Your task to perform on an android device: Do I have any events today? Image 0: 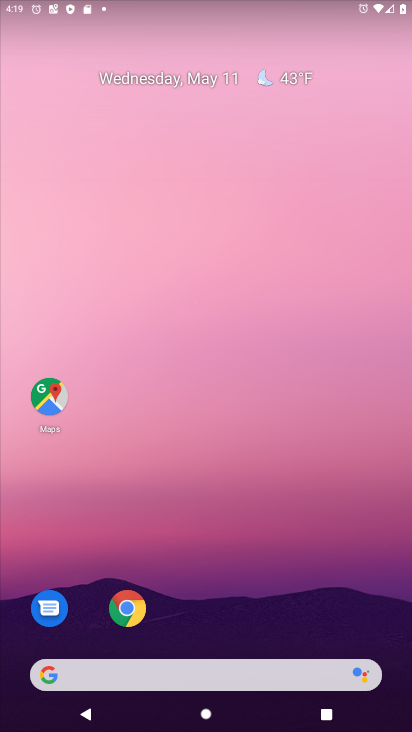
Step 0: drag from (234, 726) to (235, 128)
Your task to perform on an android device: Do I have any events today? Image 1: 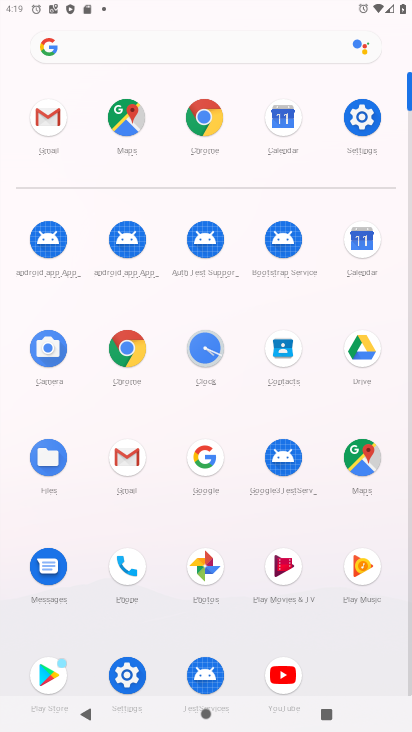
Step 1: click (358, 242)
Your task to perform on an android device: Do I have any events today? Image 2: 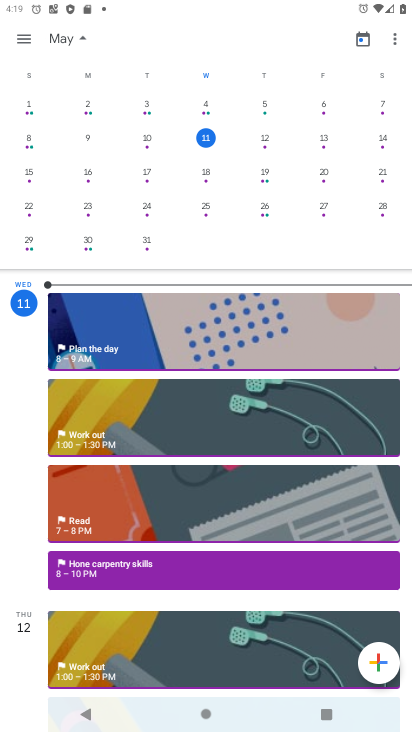
Step 2: click (201, 141)
Your task to perform on an android device: Do I have any events today? Image 3: 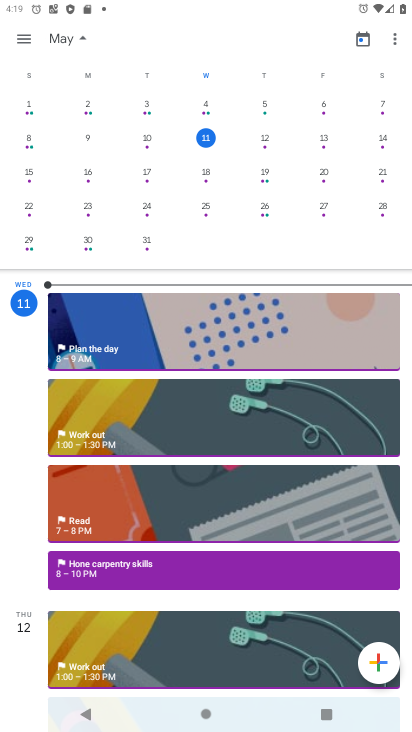
Step 3: click (27, 38)
Your task to perform on an android device: Do I have any events today? Image 4: 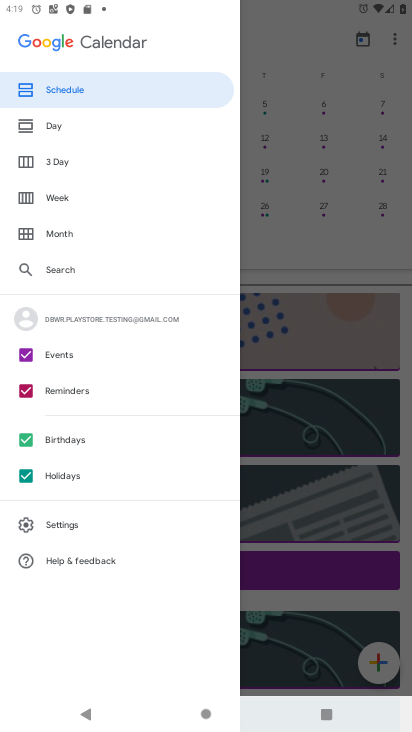
Step 4: click (26, 473)
Your task to perform on an android device: Do I have any events today? Image 5: 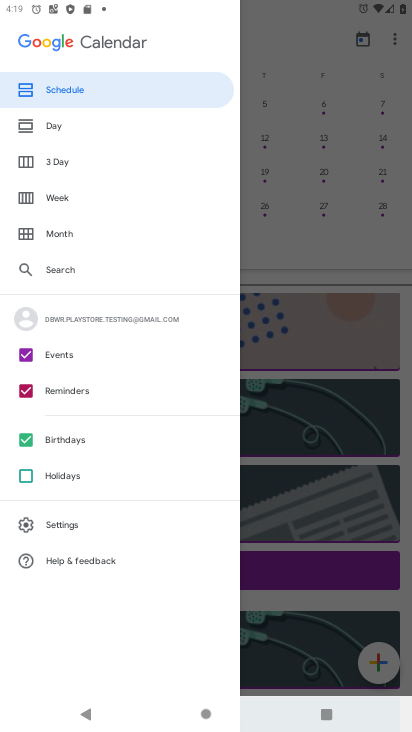
Step 5: click (25, 436)
Your task to perform on an android device: Do I have any events today? Image 6: 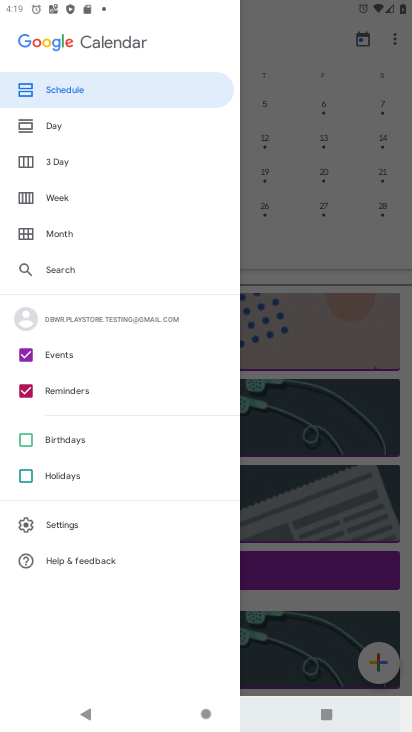
Step 6: click (28, 390)
Your task to perform on an android device: Do I have any events today? Image 7: 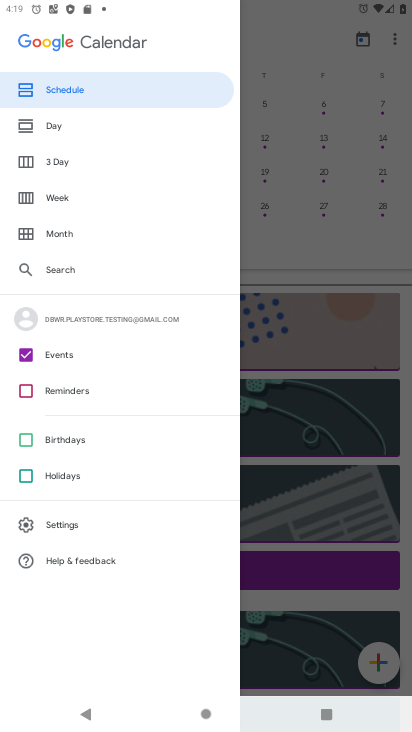
Step 7: click (78, 88)
Your task to perform on an android device: Do I have any events today? Image 8: 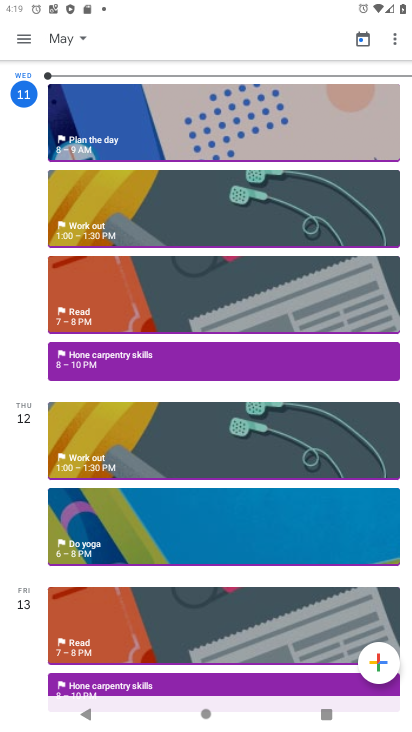
Step 8: task complete